Your task to perform on an android device: Open Google Maps Image 0: 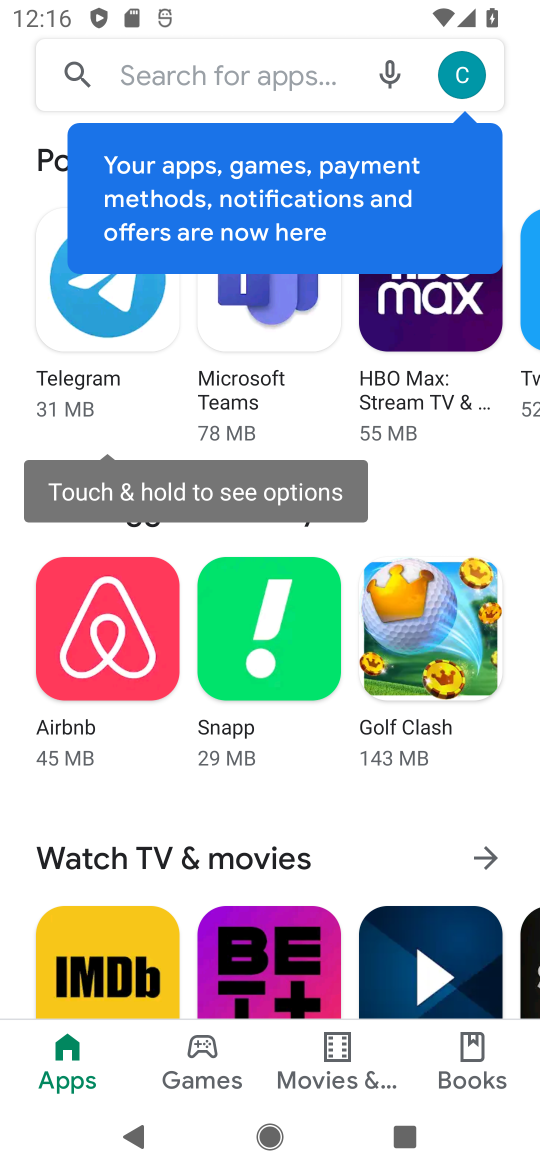
Step 0: press back button
Your task to perform on an android device: Open Google Maps Image 1: 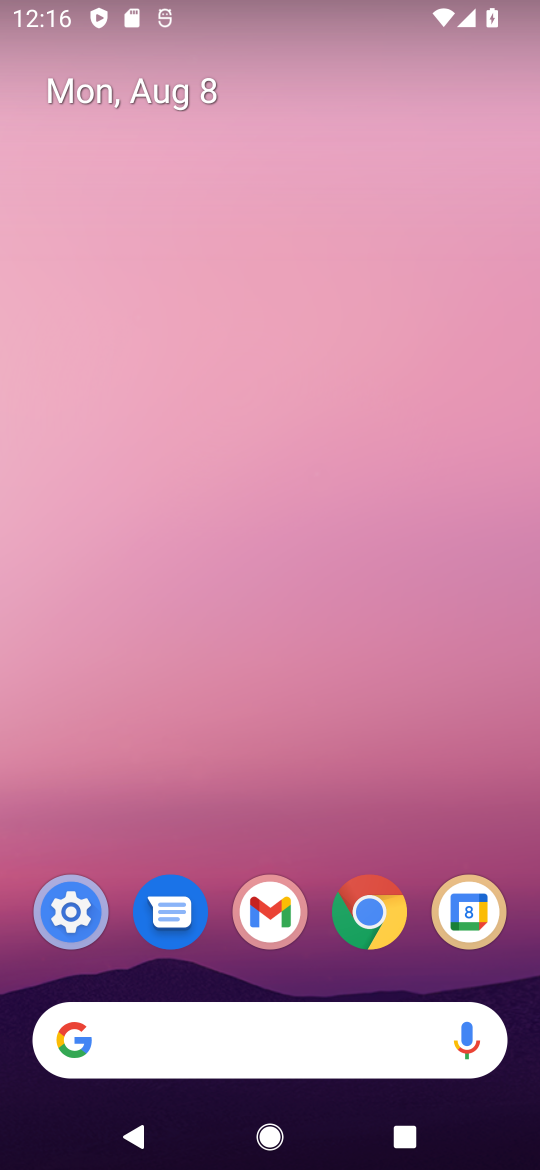
Step 1: drag from (256, 987) to (420, 0)
Your task to perform on an android device: Open Google Maps Image 2: 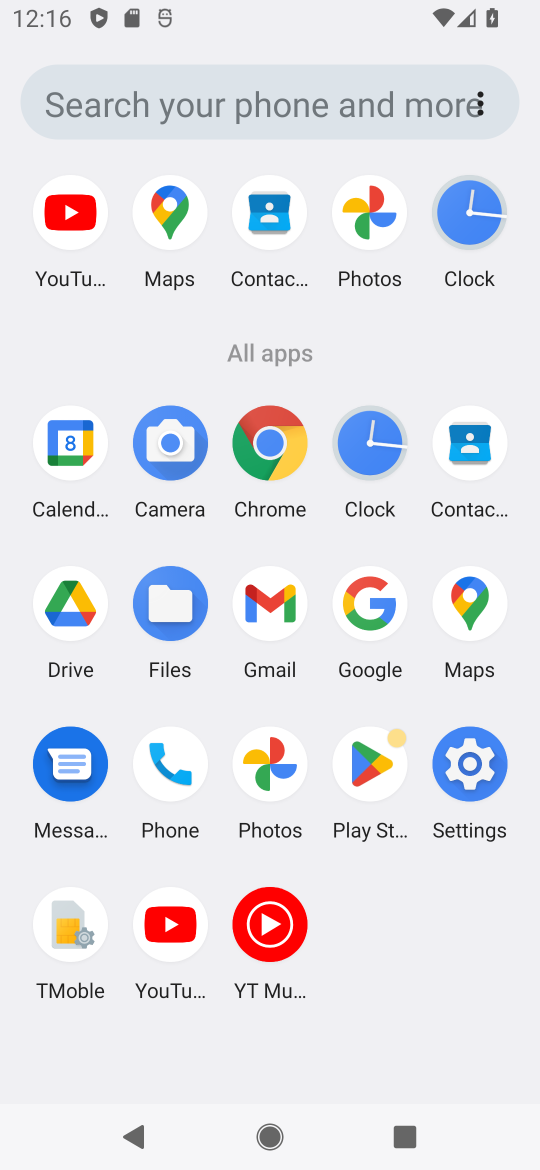
Step 2: click (167, 211)
Your task to perform on an android device: Open Google Maps Image 3: 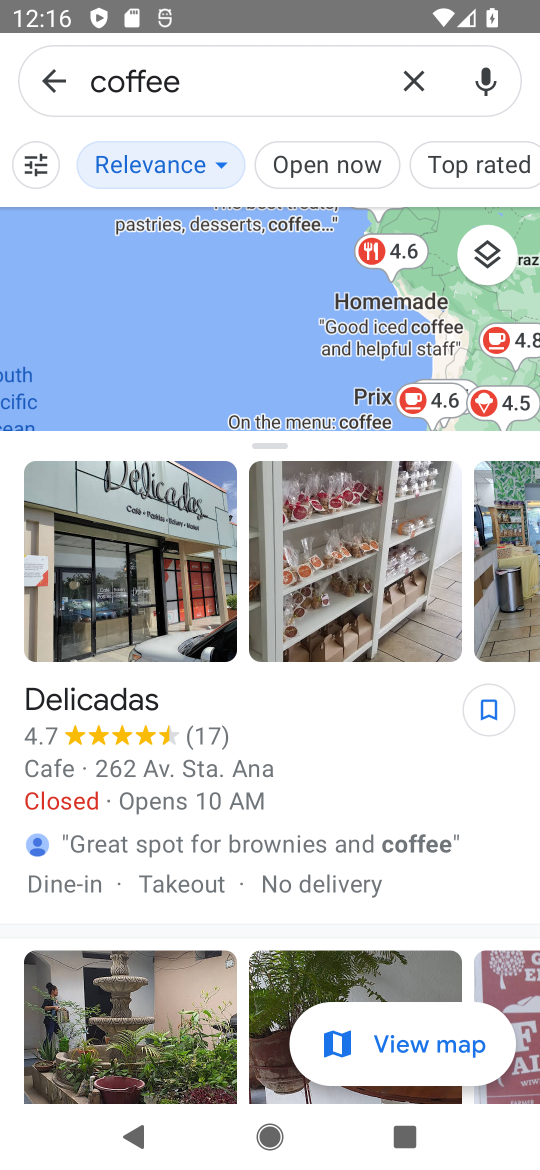
Step 3: task complete